Your task to perform on an android device: turn on the 12-hour format for clock Image 0: 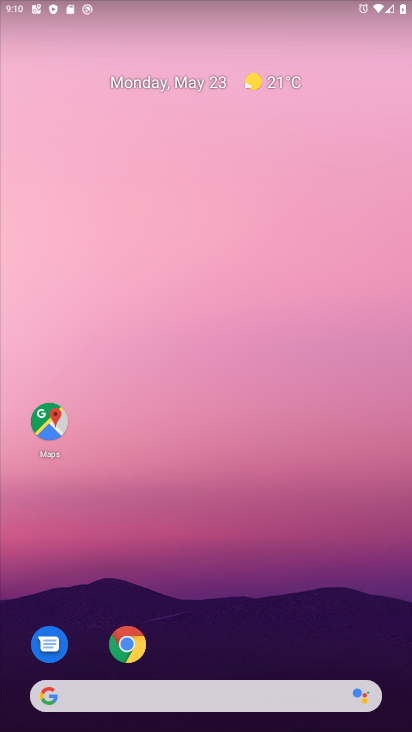
Step 0: drag from (224, 722) to (249, 88)
Your task to perform on an android device: turn on the 12-hour format for clock Image 1: 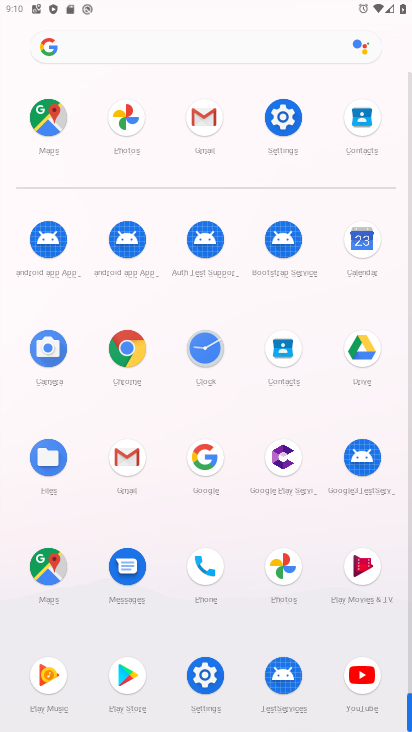
Step 1: click (209, 357)
Your task to perform on an android device: turn on the 12-hour format for clock Image 2: 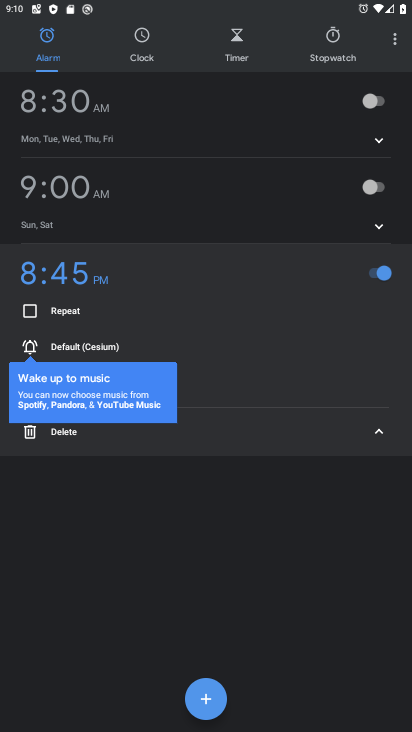
Step 2: click (394, 37)
Your task to perform on an android device: turn on the 12-hour format for clock Image 3: 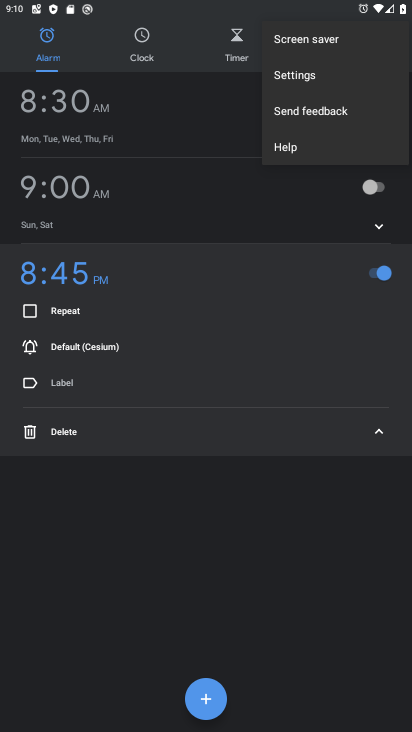
Step 3: click (312, 87)
Your task to perform on an android device: turn on the 12-hour format for clock Image 4: 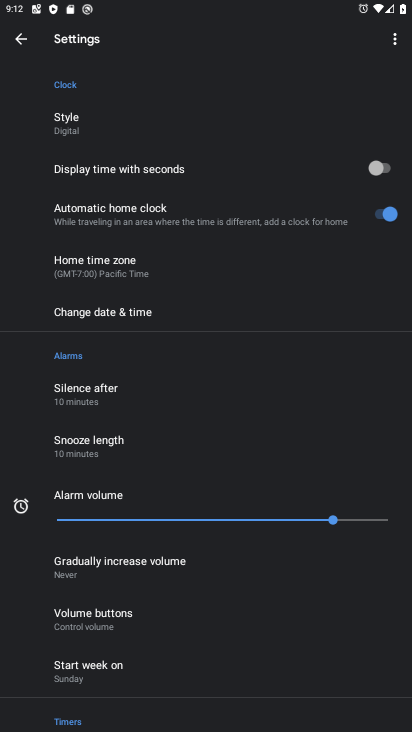
Step 4: click (169, 312)
Your task to perform on an android device: turn on the 12-hour format for clock Image 5: 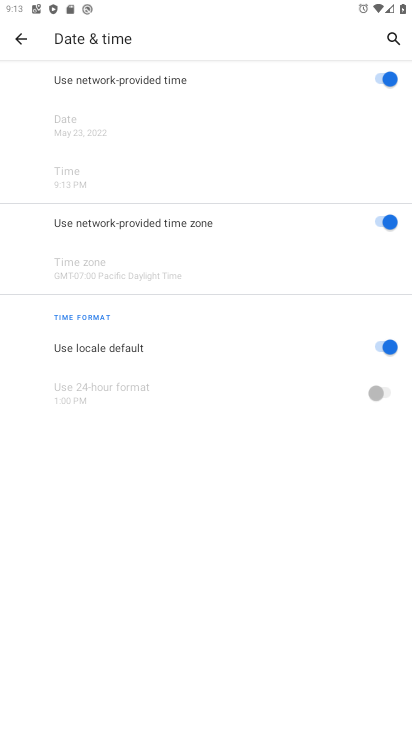
Step 5: task complete